Your task to perform on an android device: turn on data saver in the chrome app Image 0: 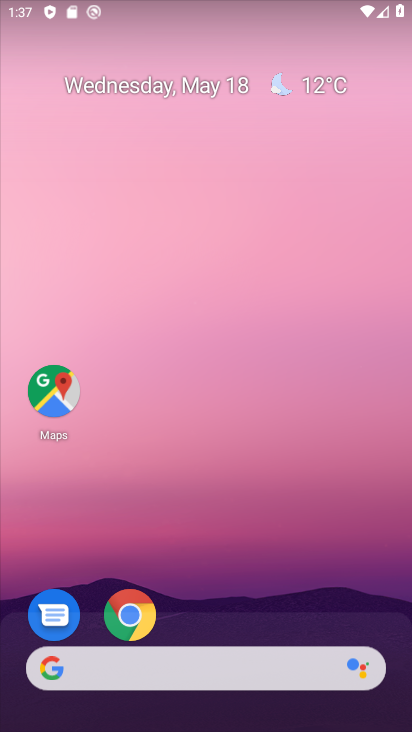
Step 0: drag from (310, 614) to (293, 7)
Your task to perform on an android device: turn on data saver in the chrome app Image 1: 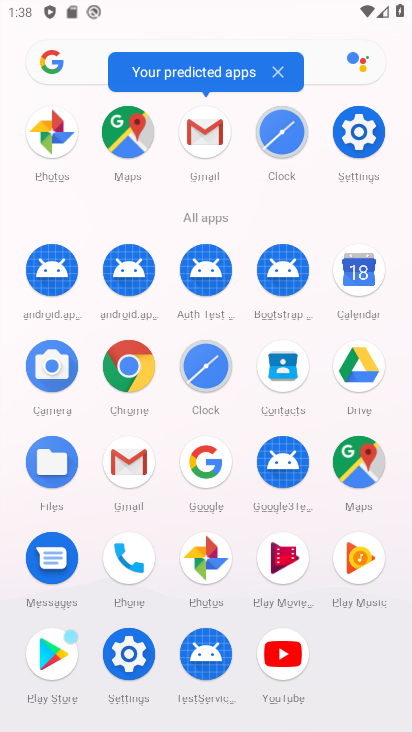
Step 1: click (133, 369)
Your task to perform on an android device: turn on data saver in the chrome app Image 2: 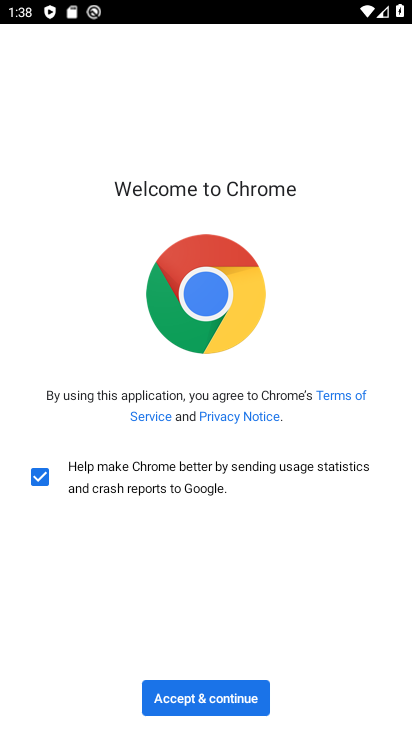
Step 2: click (207, 691)
Your task to perform on an android device: turn on data saver in the chrome app Image 3: 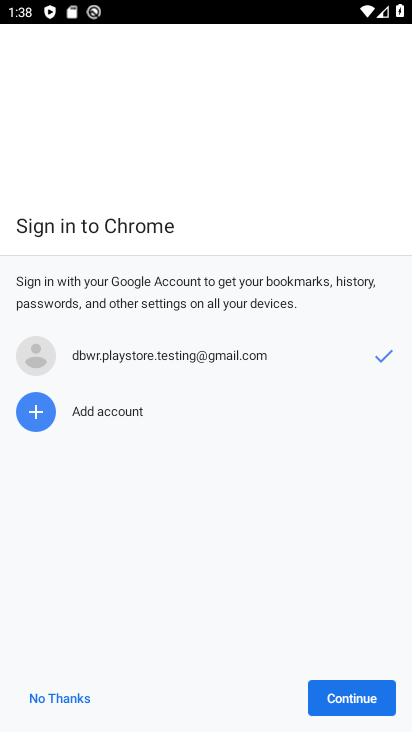
Step 3: click (207, 691)
Your task to perform on an android device: turn on data saver in the chrome app Image 4: 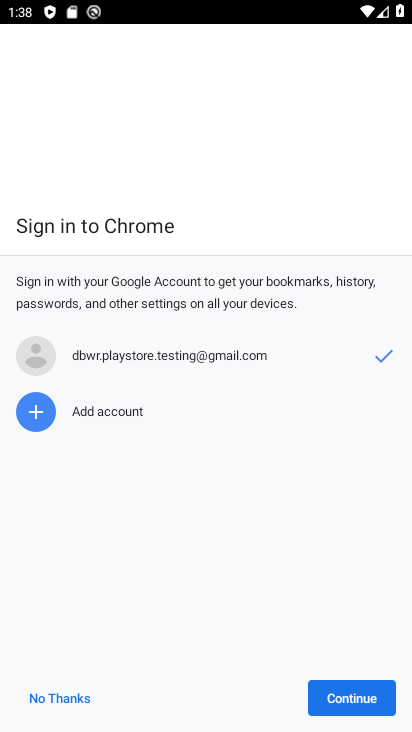
Step 4: click (330, 709)
Your task to perform on an android device: turn on data saver in the chrome app Image 5: 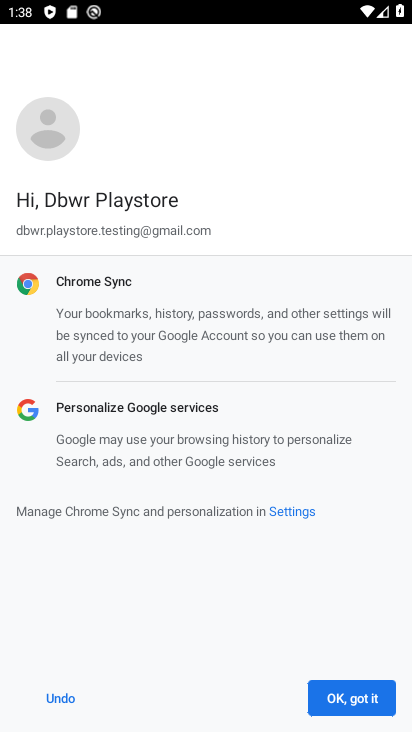
Step 5: click (347, 703)
Your task to perform on an android device: turn on data saver in the chrome app Image 6: 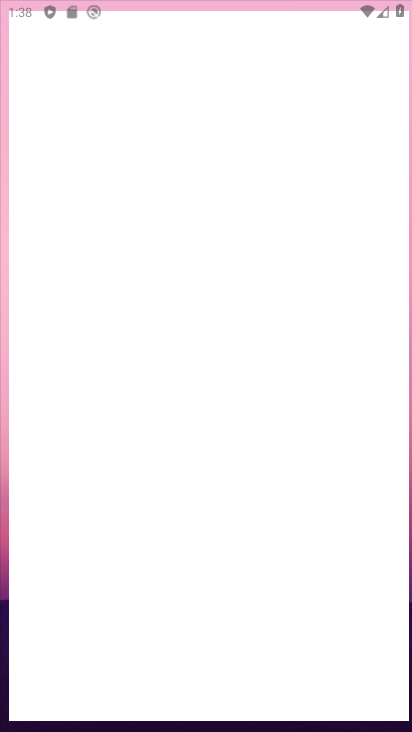
Step 6: click (347, 703)
Your task to perform on an android device: turn on data saver in the chrome app Image 7: 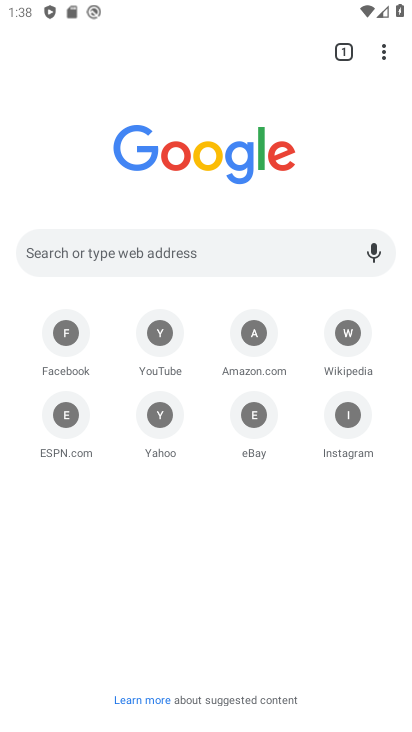
Step 7: click (382, 48)
Your task to perform on an android device: turn on data saver in the chrome app Image 8: 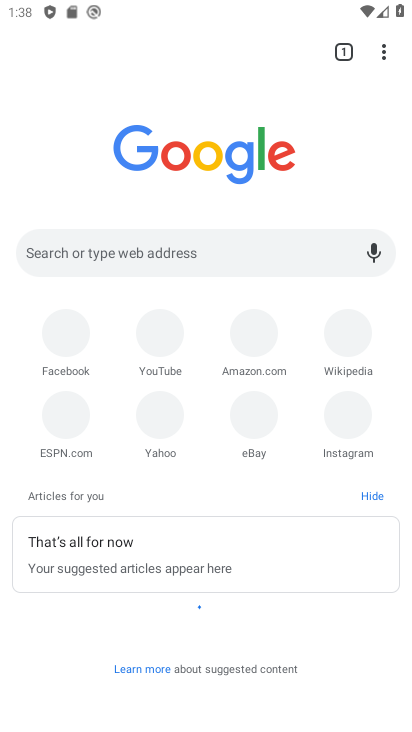
Step 8: click (381, 53)
Your task to perform on an android device: turn on data saver in the chrome app Image 9: 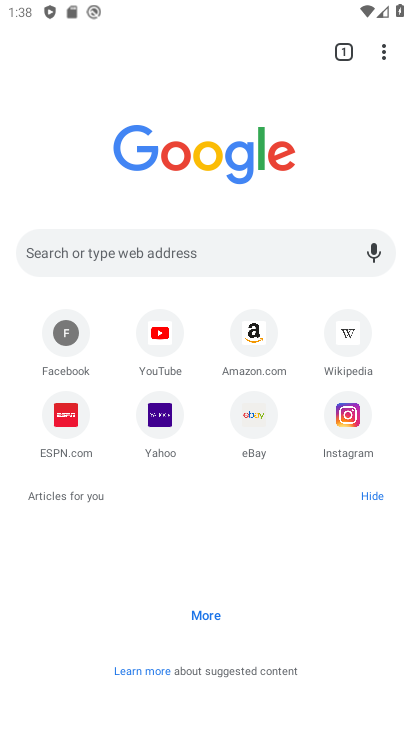
Step 9: click (385, 47)
Your task to perform on an android device: turn on data saver in the chrome app Image 10: 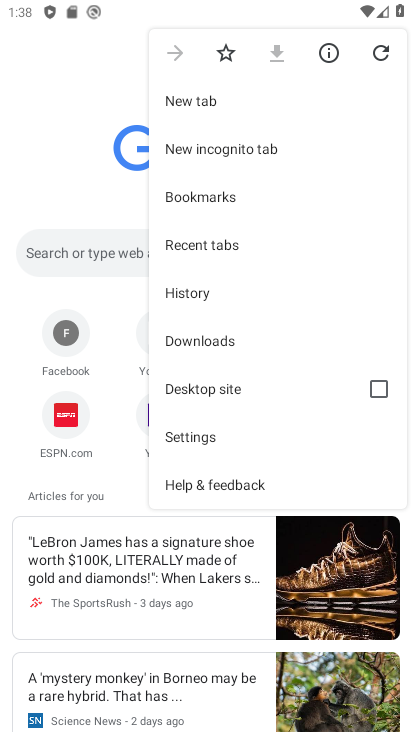
Step 10: click (233, 434)
Your task to perform on an android device: turn on data saver in the chrome app Image 11: 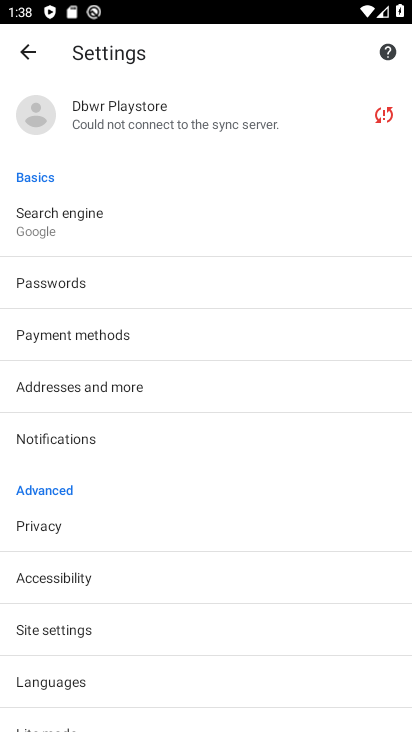
Step 11: drag from (156, 483) to (168, 243)
Your task to perform on an android device: turn on data saver in the chrome app Image 12: 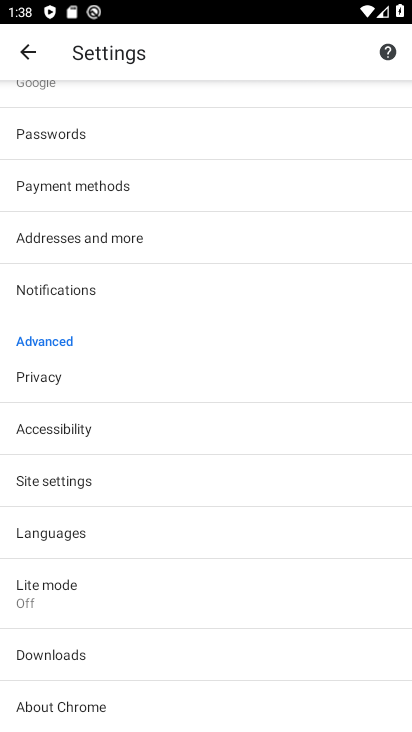
Step 12: click (83, 614)
Your task to perform on an android device: turn on data saver in the chrome app Image 13: 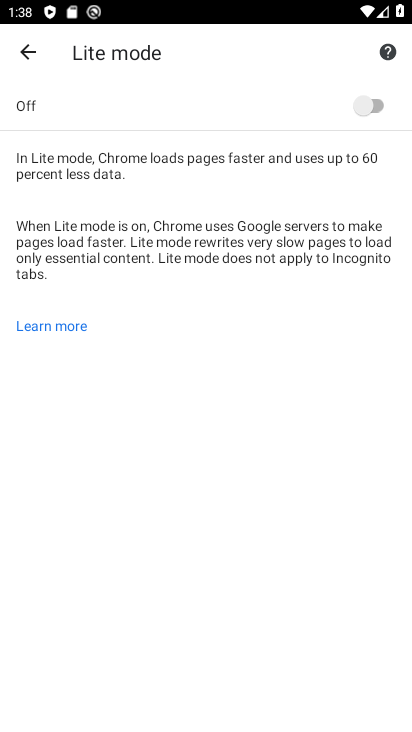
Step 13: click (383, 117)
Your task to perform on an android device: turn on data saver in the chrome app Image 14: 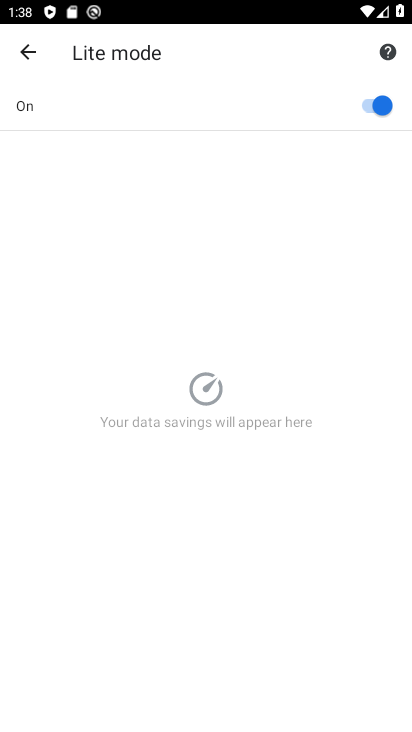
Step 14: task complete